Your task to perform on an android device: check android version Image 0: 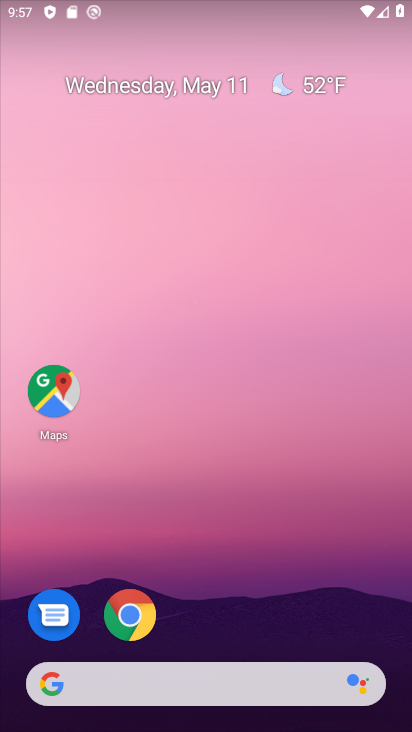
Step 0: drag from (250, 592) to (174, 144)
Your task to perform on an android device: check android version Image 1: 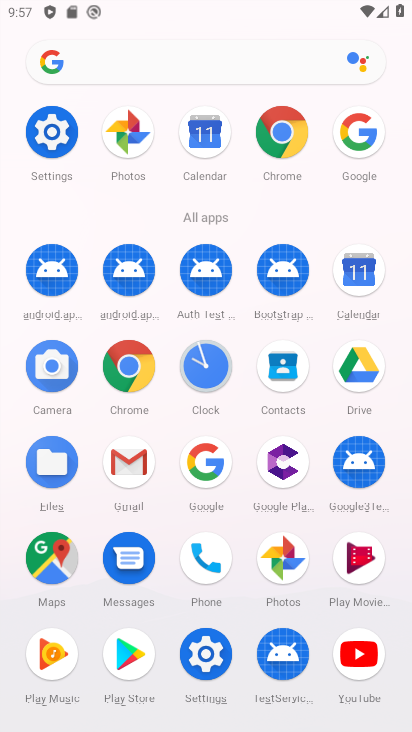
Step 1: click (205, 650)
Your task to perform on an android device: check android version Image 2: 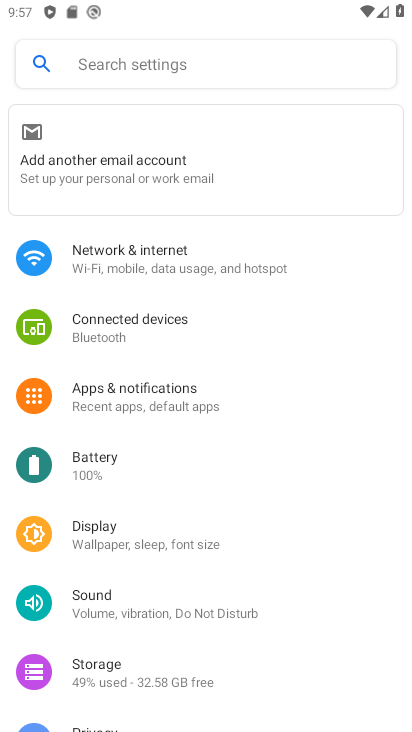
Step 2: drag from (147, 448) to (200, 327)
Your task to perform on an android device: check android version Image 3: 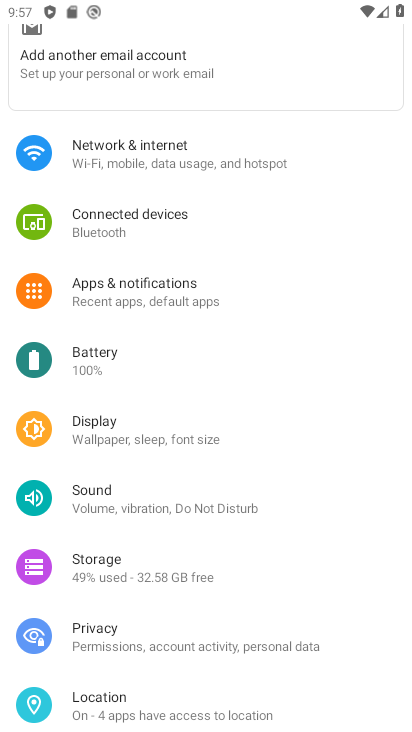
Step 3: drag from (153, 469) to (201, 361)
Your task to perform on an android device: check android version Image 4: 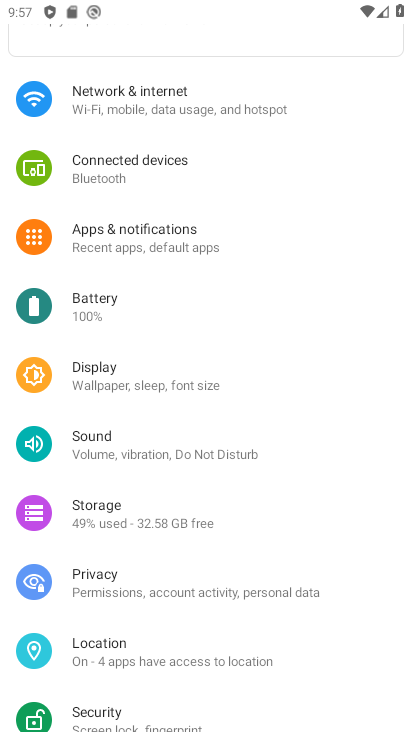
Step 4: drag from (139, 557) to (235, 418)
Your task to perform on an android device: check android version Image 5: 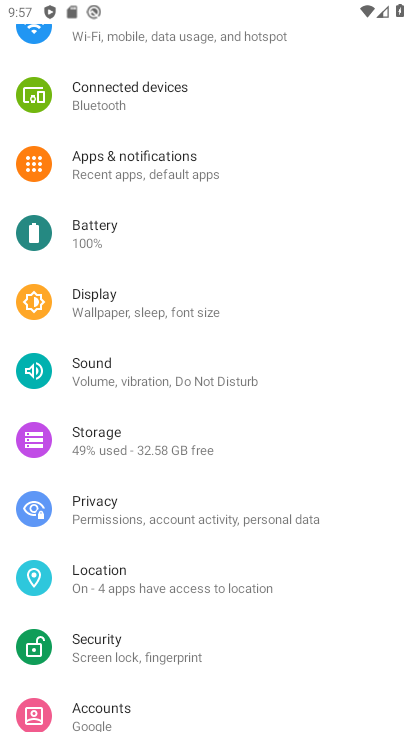
Step 5: drag from (136, 553) to (244, 421)
Your task to perform on an android device: check android version Image 6: 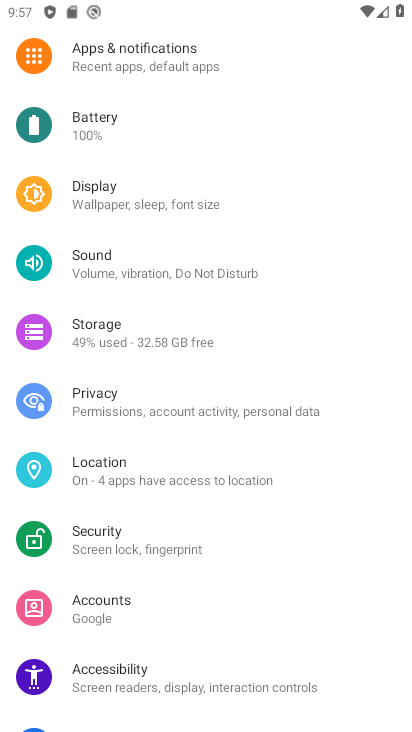
Step 6: drag from (148, 588) to (260, 421)
Your task to perform on an android device: check android version Image 7: 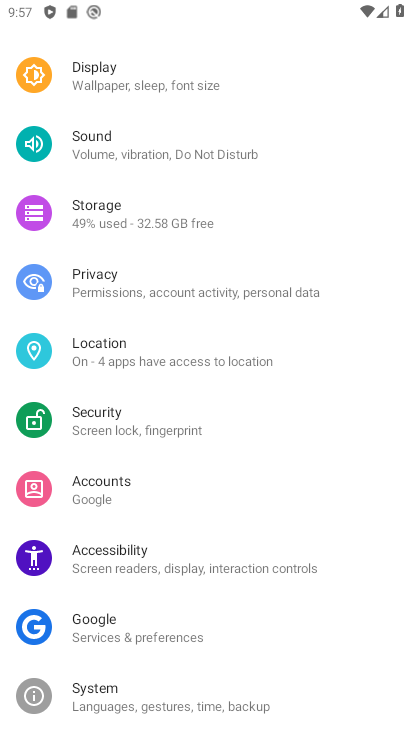
Step 7: drag from (148, 598) to (241, 452)
Your task to perform on an android device: check android version Image 8: 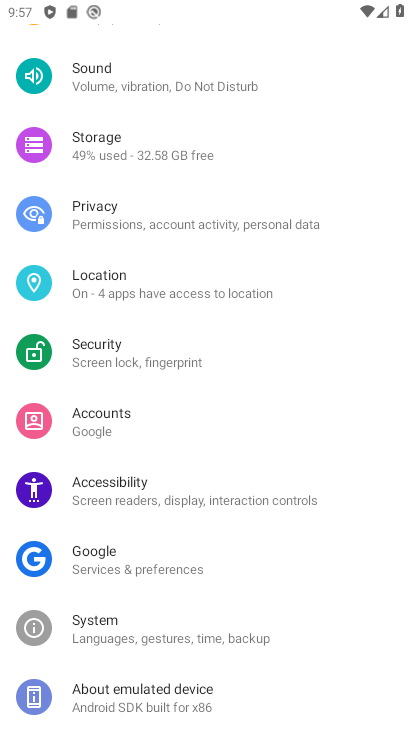
Step 8: click (109, 685)
Your task to perform on an android device: check android version Image 9: 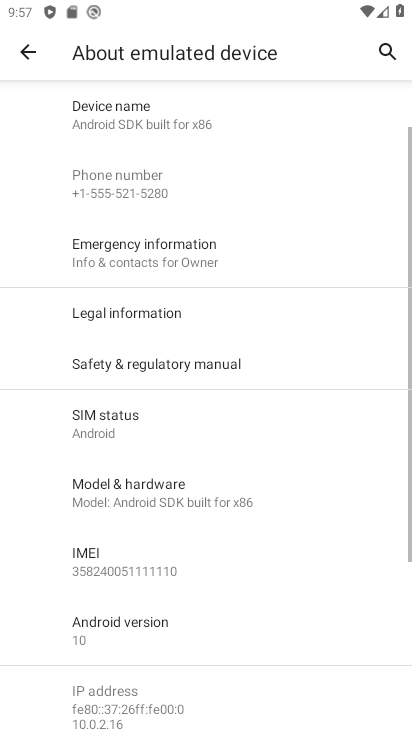
Step 9: drag from (139, 542) to (241, 414)
Your task to perform on an android device: check android version Image 10: 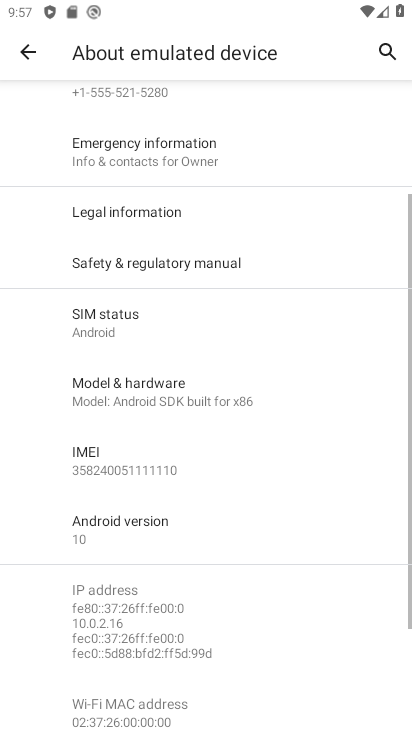
Step 10: click (141, 518)
Your task to perform on an android device: check android version Image 11: 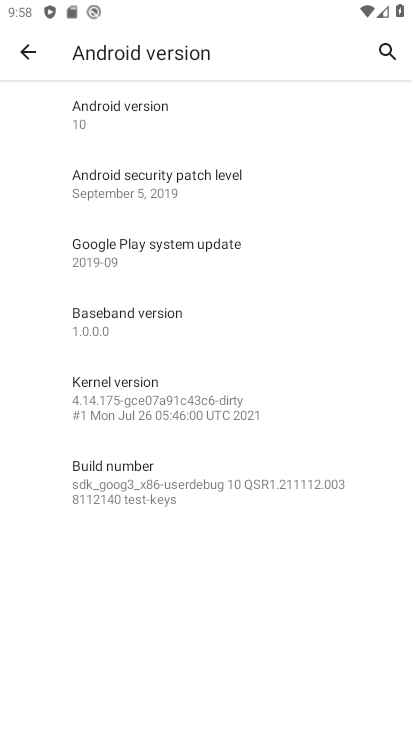
Step 11: task complete